Your task to perform on an android device: open app "Etsy: Buy & Sell Unique Items" (install if not already installed) and enter user name: "camp@inbox.com" and password: "unrelated" Image 0: 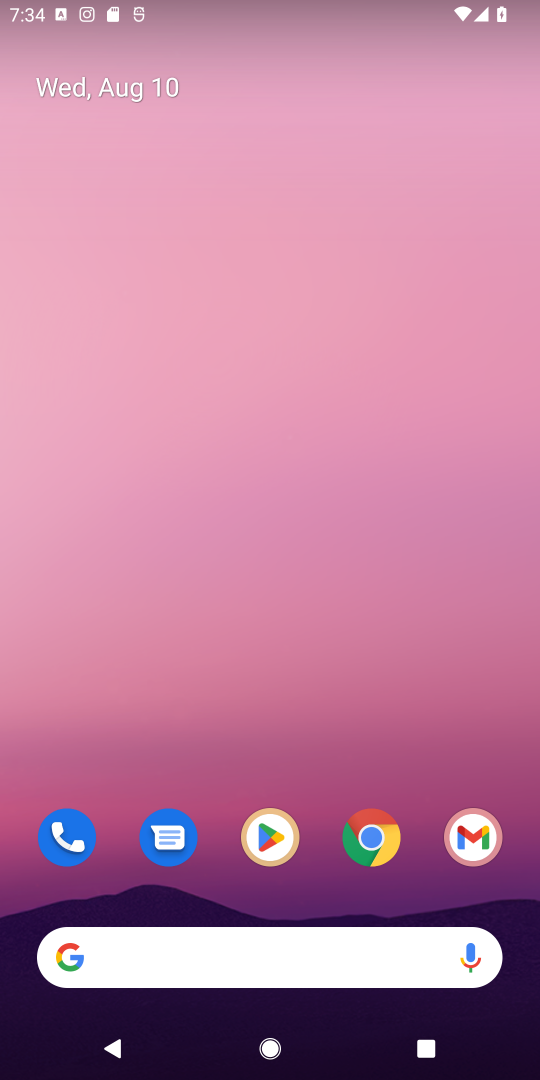
Step 0: press home button
Your task to perform on an android device: open app "Etsy: Buy & Sell Unique Items" (install if not already installed) and enter user name: "camp@inbox.com" and password: "unrelated" Image 1: 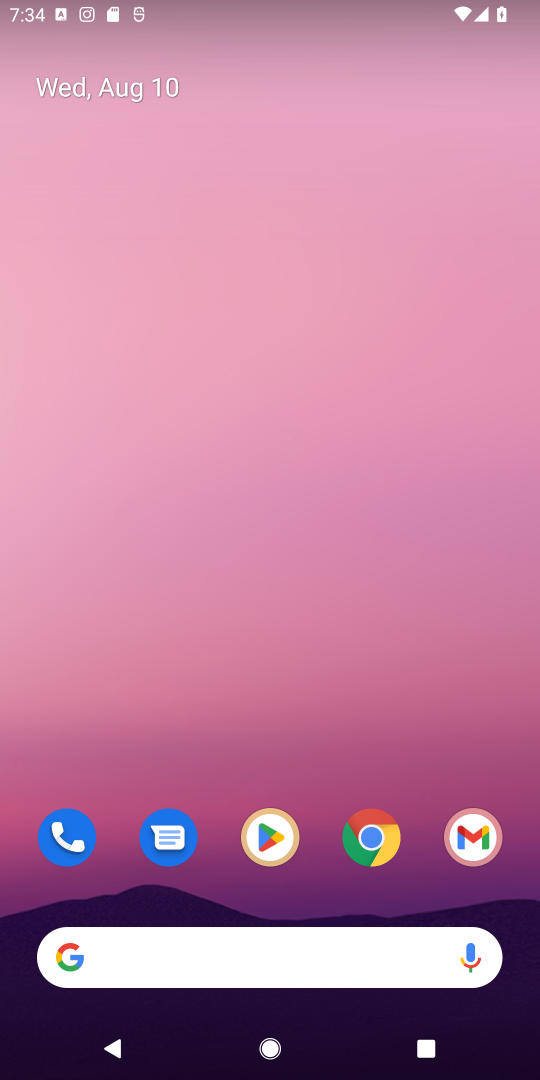
Step 1: click (272, 840)
Your task to perform on an android device: open app "Etsy: Buy & Sell Unique Items" (install if not already installed) and enter user name: "camp@inbox.com" and password: "unrelated" Image 2: 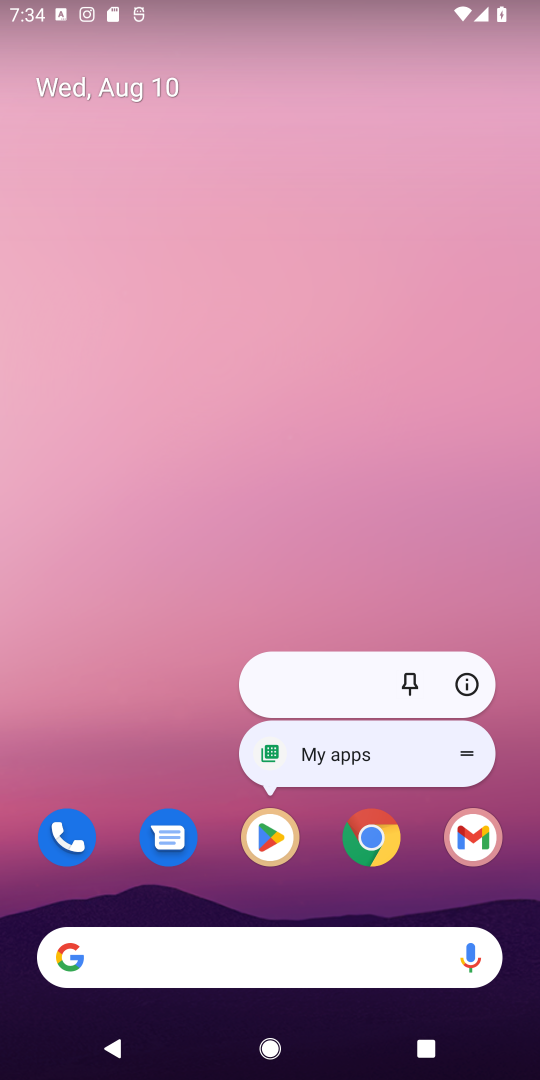
Step 2: click (272, 841)
Your task to perform on an android device: open app "Etsy: Buy & Sell Unique Items" (install if not already installed) and enter user name: "camp@inbox.com" and password: "unrelated" Image 3: 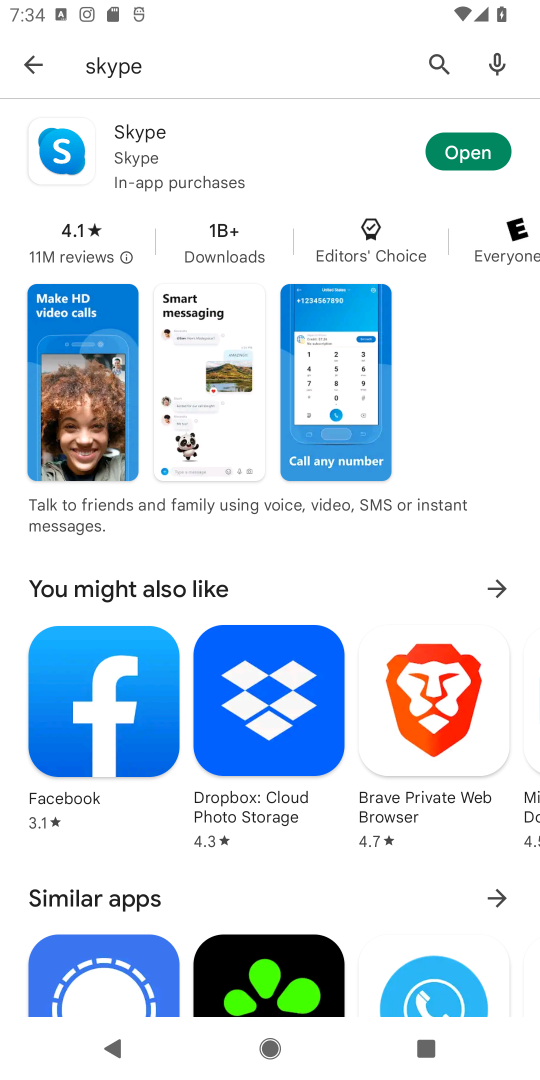
Step 3: click (436, 64)
Your task to perform on an android device: open app "Etsy: Buy & Sell Unique Items" (install if not already installed) and enter user name: "camp@inbox.com" and password: "unrelated" Image 4: 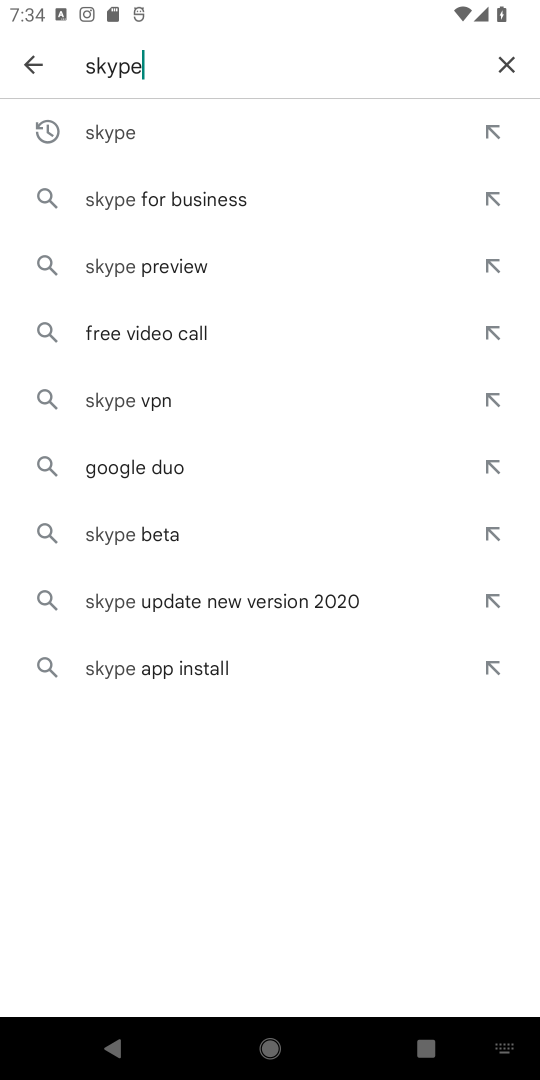
Step 4: click (504, 61)
Your task to perform on an android device: open app "Etsy: Buy & Sell Unique Items" (install if not already installed) and enter user name: "camp@inbox.com" and password: "unrelated" Image 5: 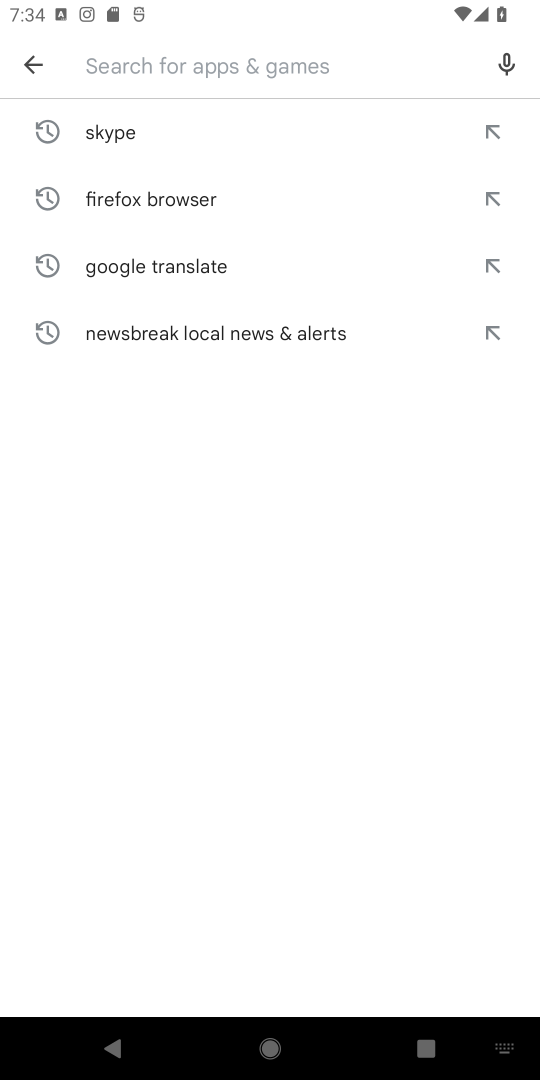
Step 5: type "Etsy: Buy & Sell Unique Items"
Your task to perform on an android device: open app "Etsy: Buy & Sell Unique Items" (install if not already installed) and enter user name: "camp@inbox.com" and password: "unrelated" Image 6: 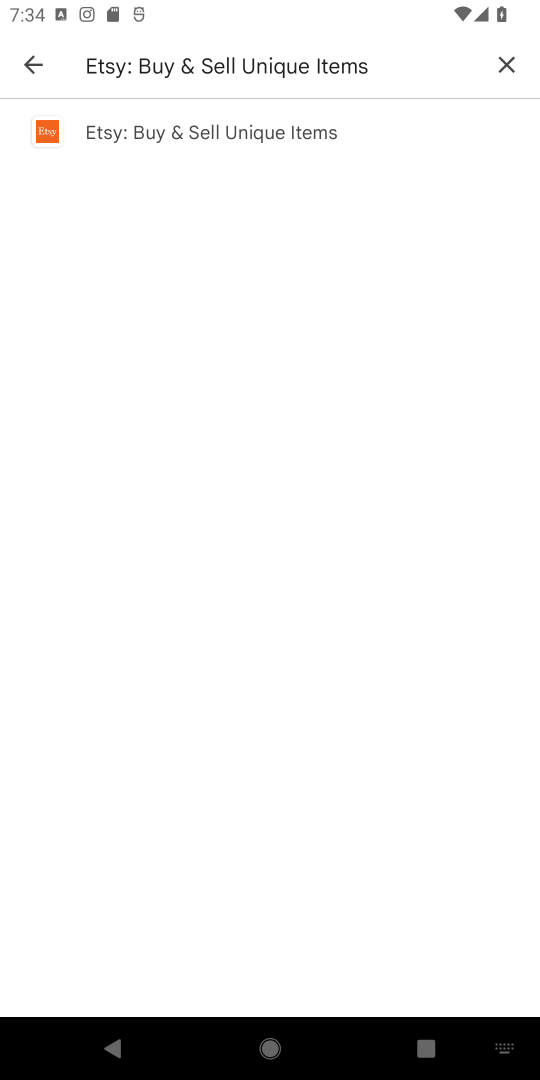
Step 6: click (183, 138)
Your task to perform on an android device: open app "Etsy: Buy & Sell Unique Items" (install if not already installed) and enter user name: "camp@inbox.com" and password: "unrelated" Image 7: 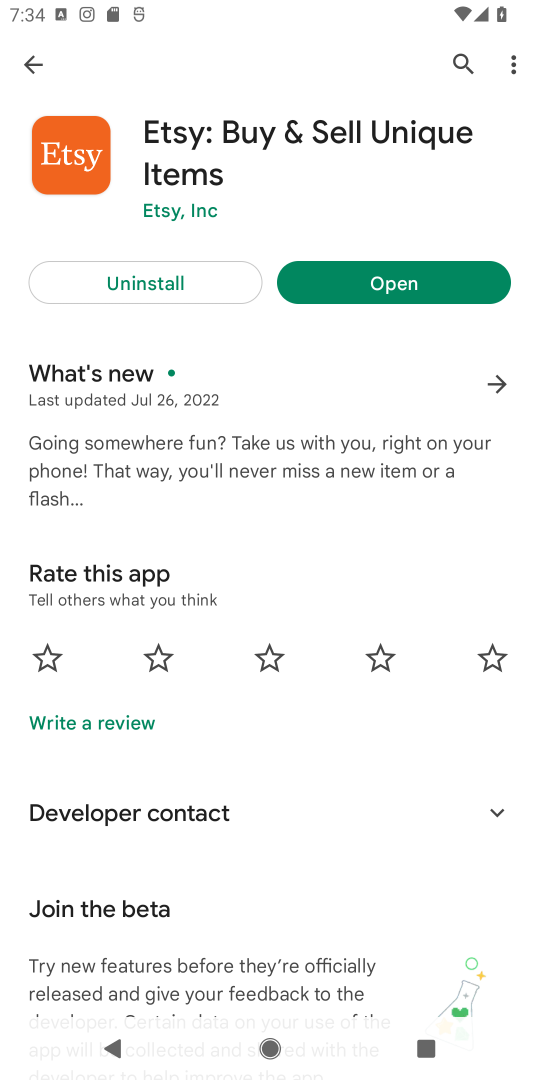
Step 7: click (354, 268)
Your task to perform on an android device: open app "Etsy: Buy & Sell Unique Items" (install if not already installed) and enter user name: "camp@inbox.com" and password: "unrelated" Image 8: 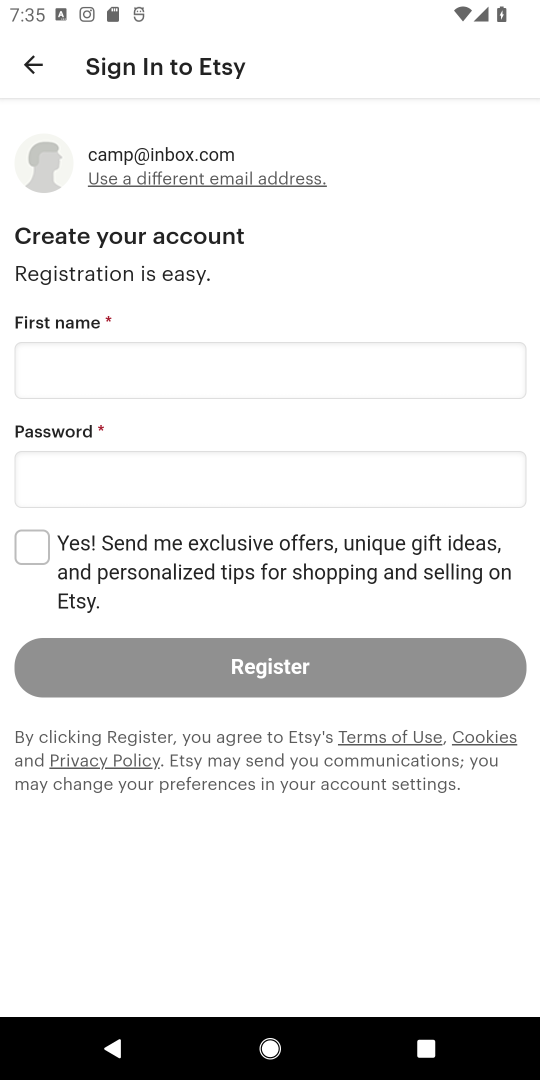
Step 8: click (216, 375)
Your task to perform on an android device: open app "Etsy: Buy & Sell Unique Items" (install if not already installed) and enter user name: "camp@inbox.com" and password: "unrelated" Image 9: 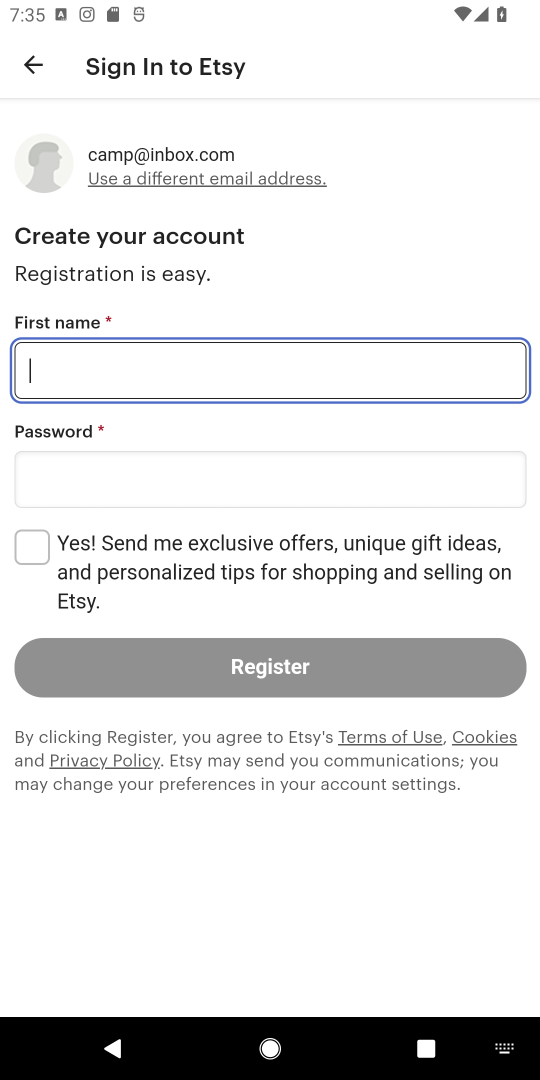
Step 9: type "camp@inbox.com"
Your task to perform on an android device: open app "Etsy: Buy & Sell Unique Items" (install if not already installed) and enter user name: "camp@inbox.com" and password: "unrelated" Image 10: 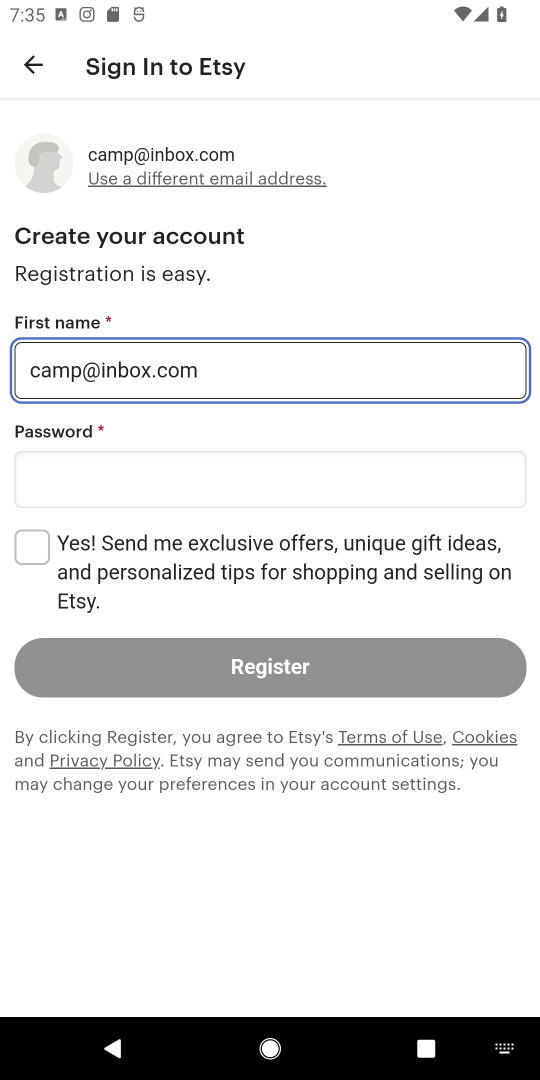
Step 10: click (215, 480)
Your task to perform on an android device: open app "Etsy: Buy & Sell Unique Items" (install if not already installed) and enter user name: "camp@inbox.com" and password: "unrelated" Image 11: 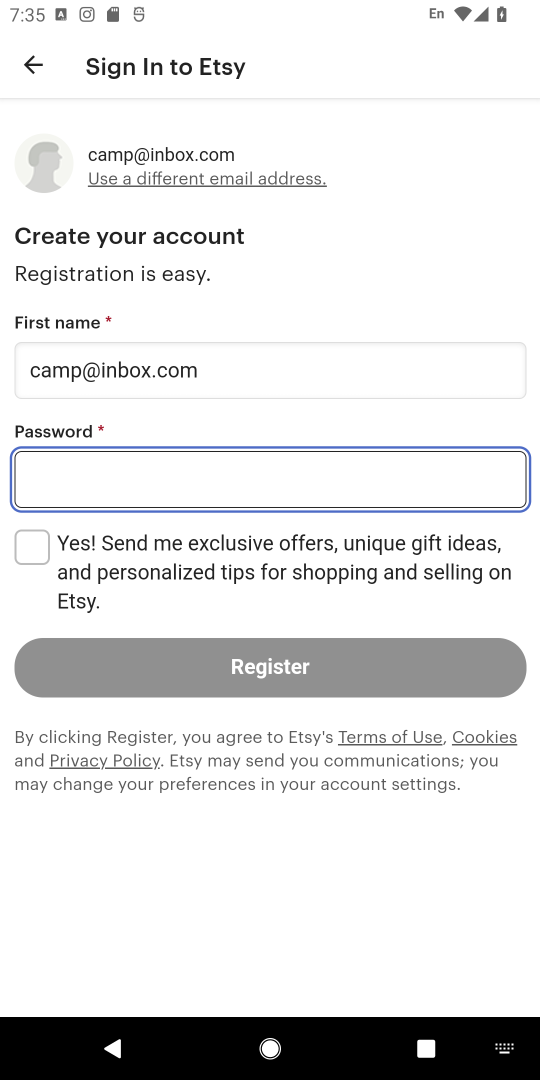
Step 11: type "unrelated"
Your task to perform on an android device: open app "Etsy: Buy & Sell Unique Items" (install if not already installed) and enter user name: "camp@inbox.com" and password: "unrelated" Image 12: 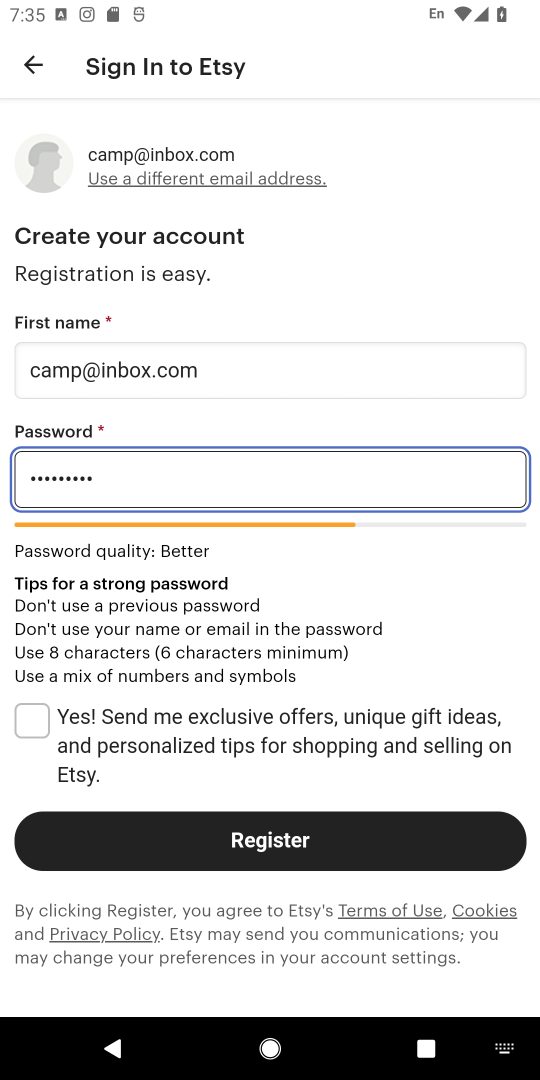
Step 12: task complete